Your task to perform on an android device: Add razer naga to the cart on walmart.com Image 0: 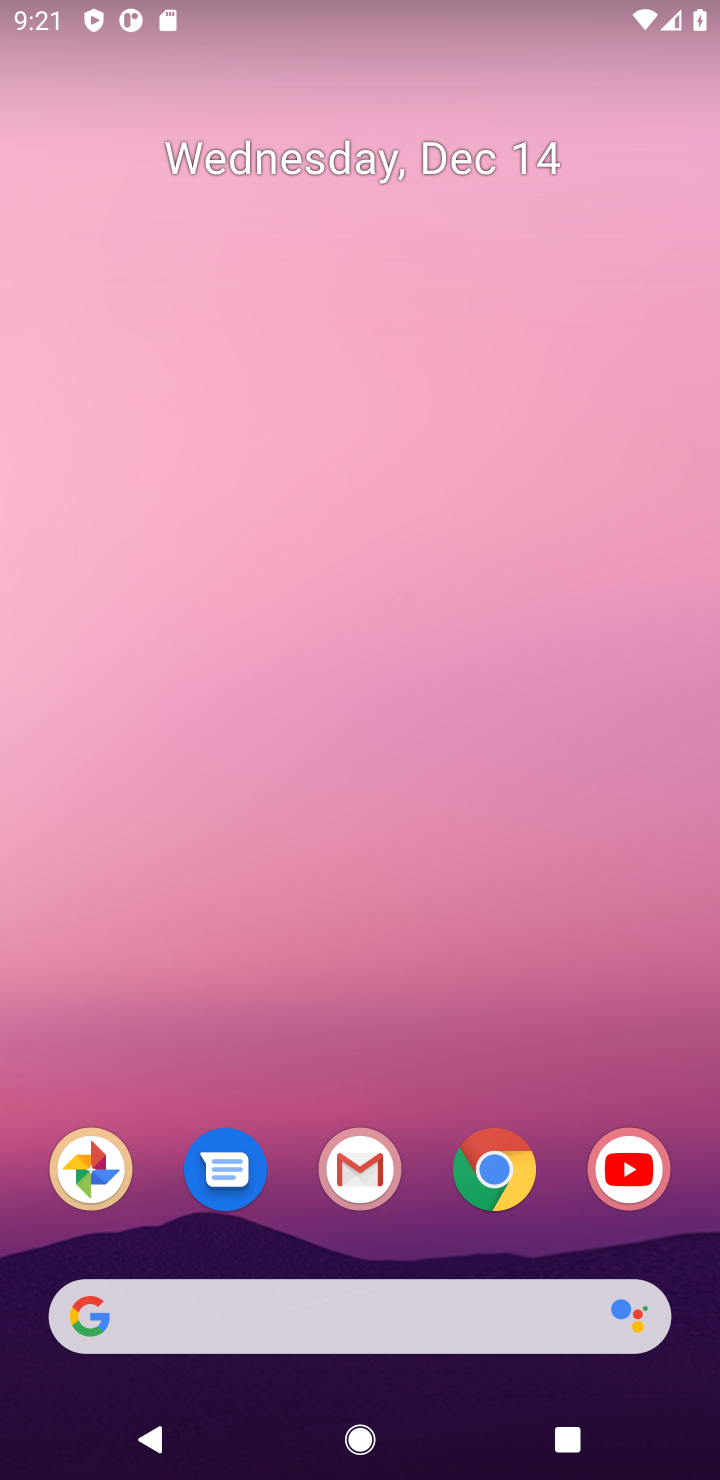
Step 0: click (498, 1183)
Your task to perform on an android device: Add razer naga to the cart on walmart.com Image 1: 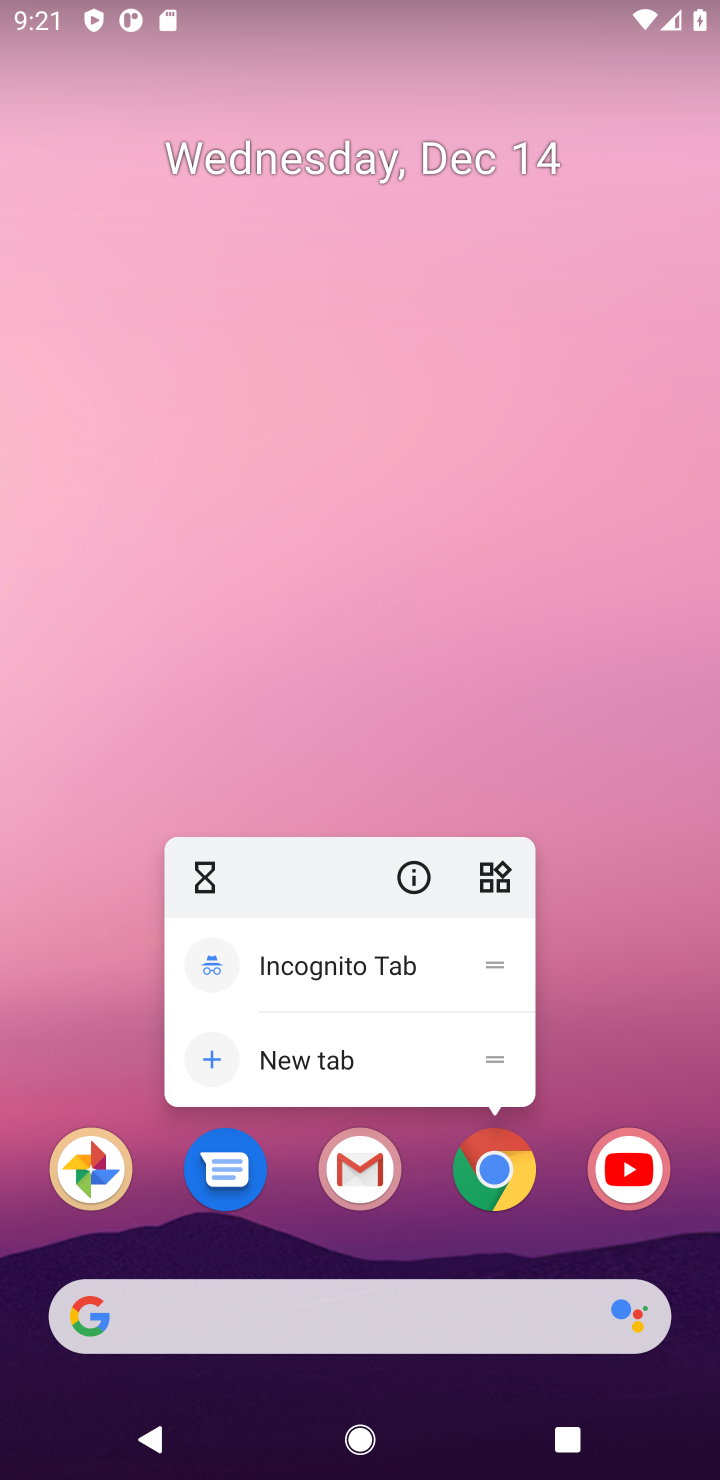
Step 1: click (488, 1192)
Your task to perform on an android device: Add razer naga to the cart on walmart.com Image 2: 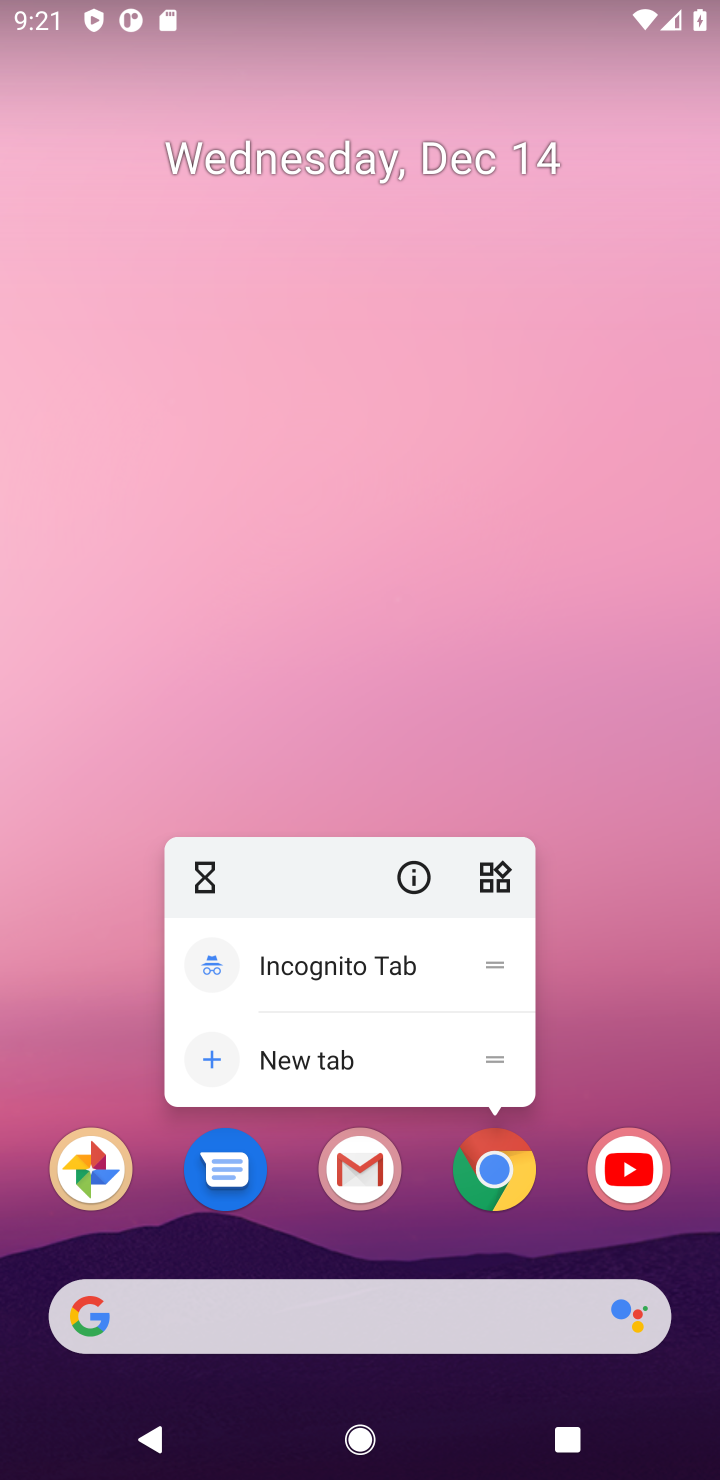
Step 2: click (491, 1188)
Your task to perform on an android device: Add razer naga to the cart on walmart.com Image 3: 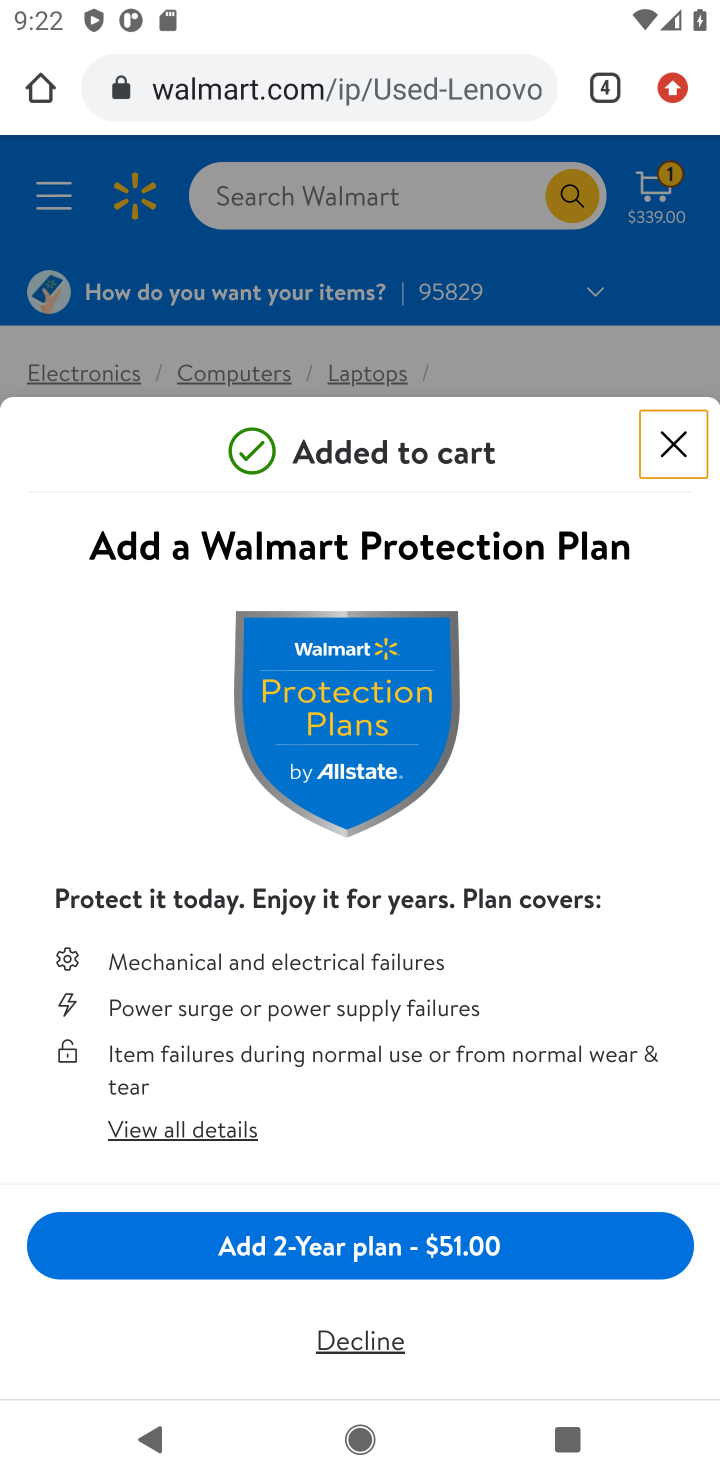
Step 3: click (675, 450)
Your task to perform on an android device: Add razer naga to the cart on walmart.com Image 4: 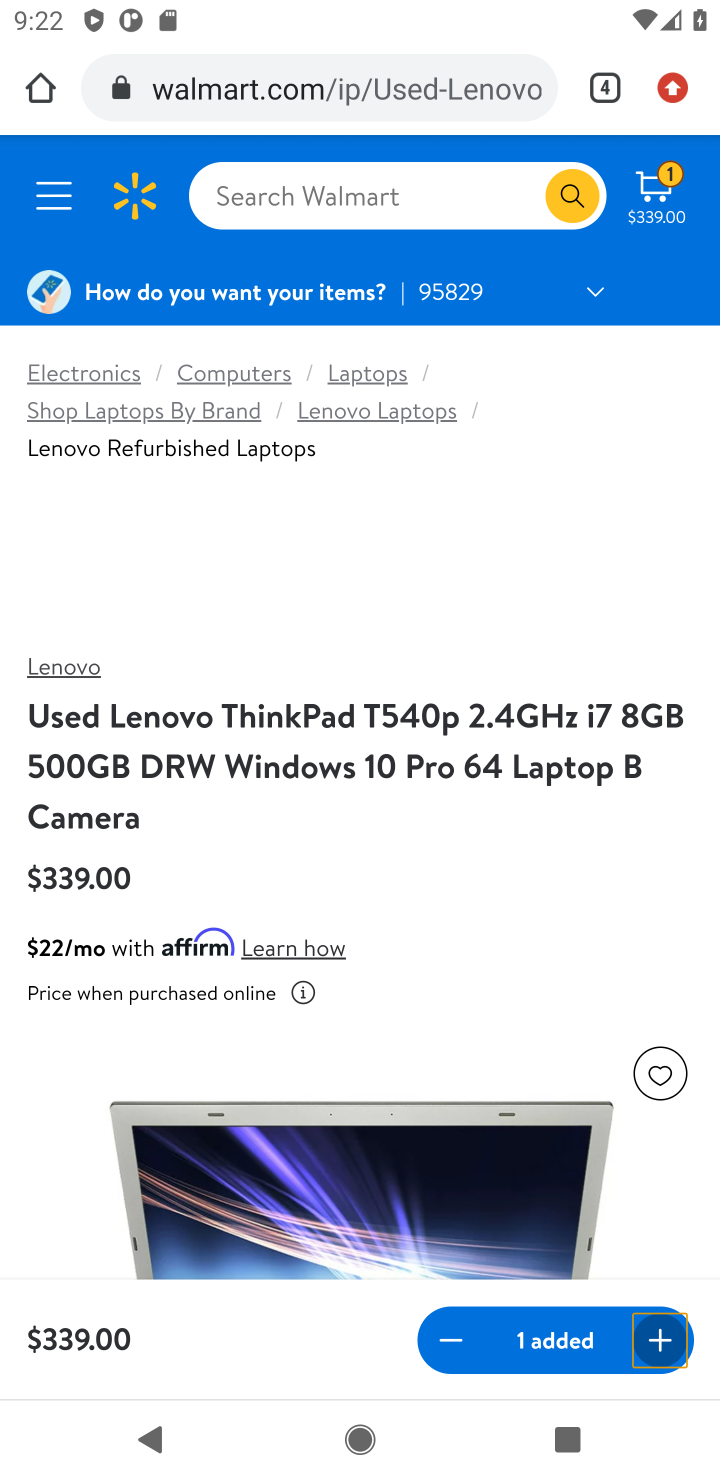
Step 4: click (370, 206)
Your task to perform on an android device: Add razer naga to the cart on walmart.com Image 5: 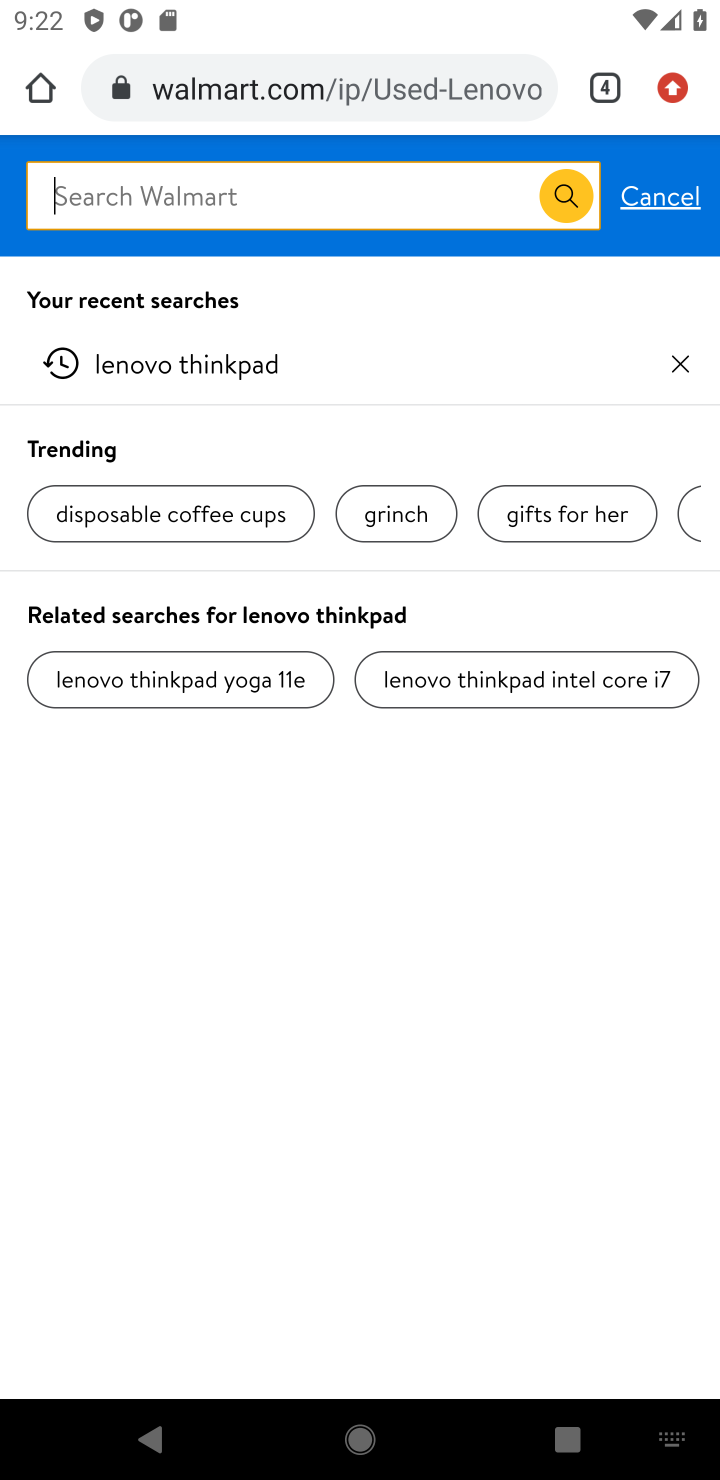
Step 5: type "razer naga"
Your task to perform on an android device: Add razer naga to the cart on walmart.com Image 6: 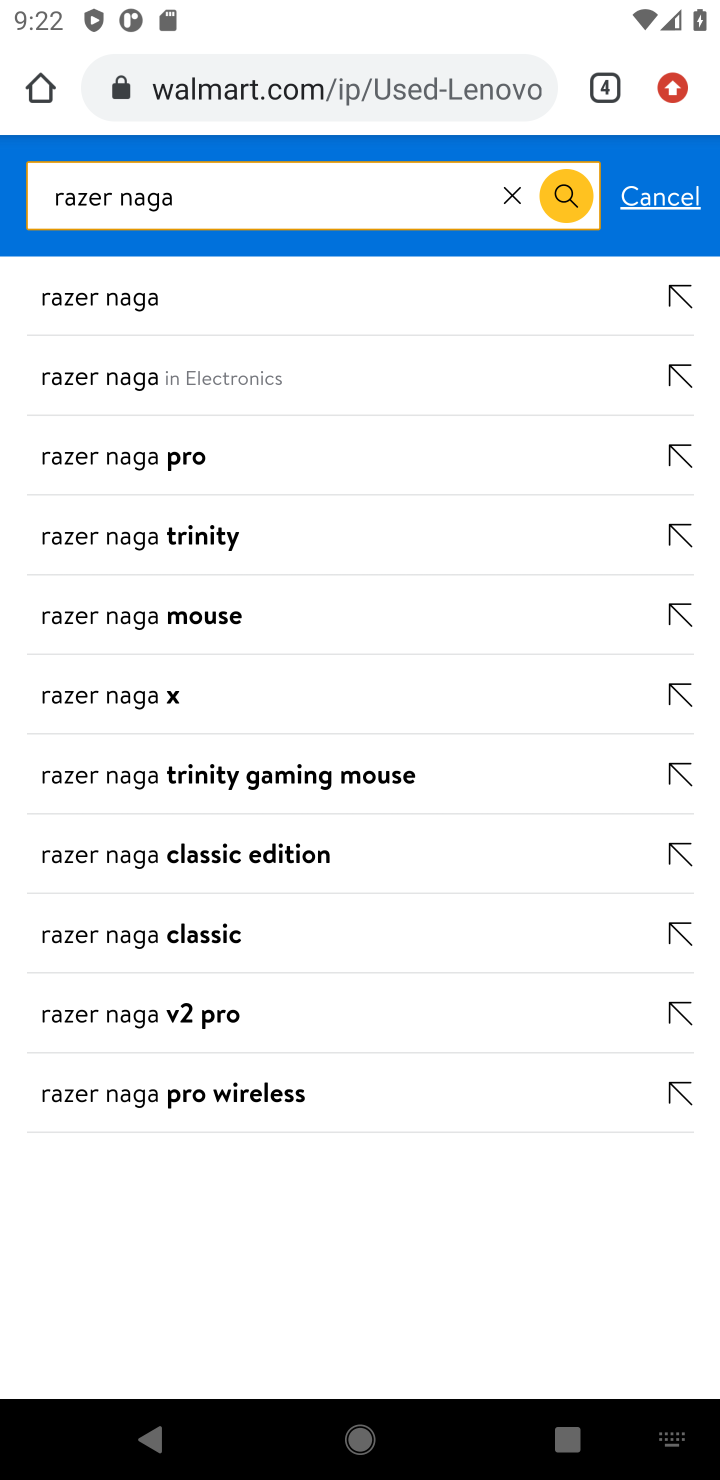
Step 6: click (130, 383)
Your task to perform on an android device: Add razer naga to the cart on walmart.com Image 7: 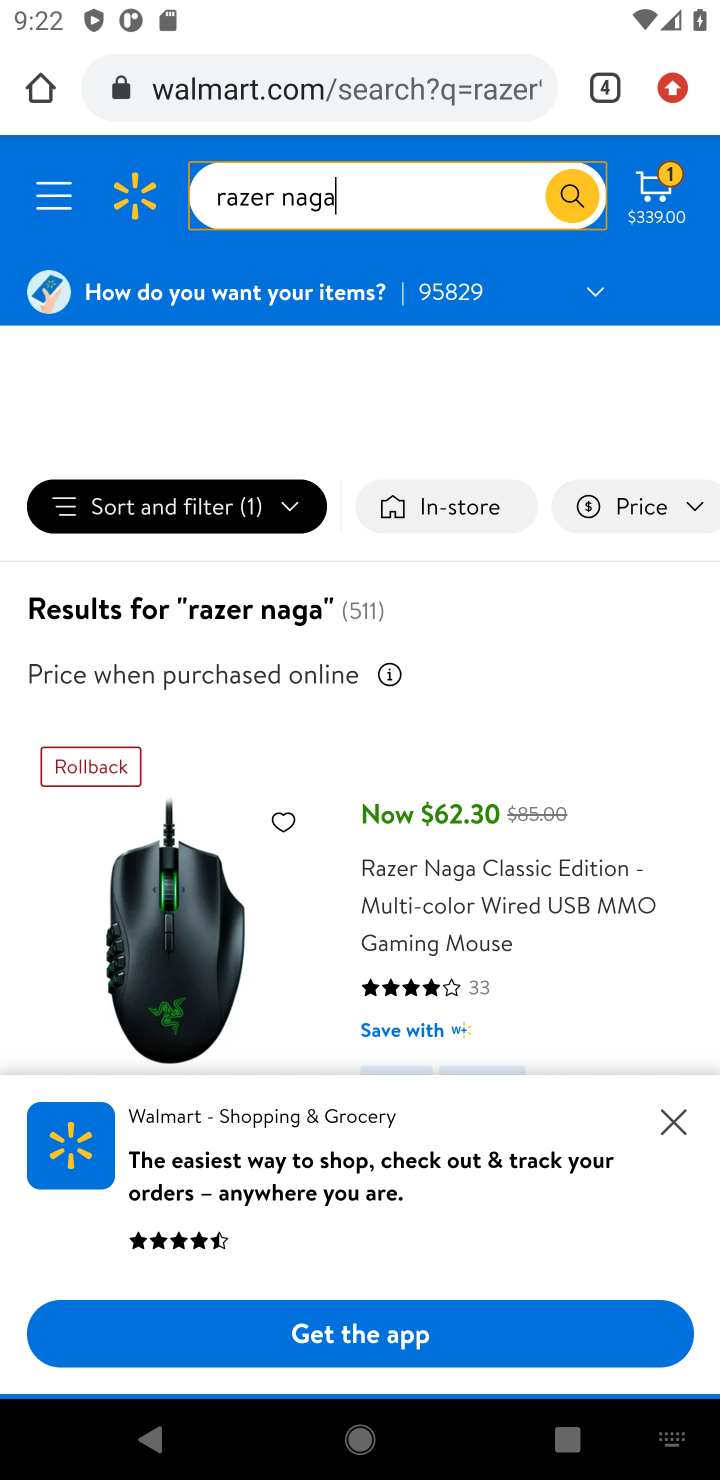
Step 7: click (686, 1108)
Your task to perform on an android device: Add razer naga to the cart on walmart.com Image 8: 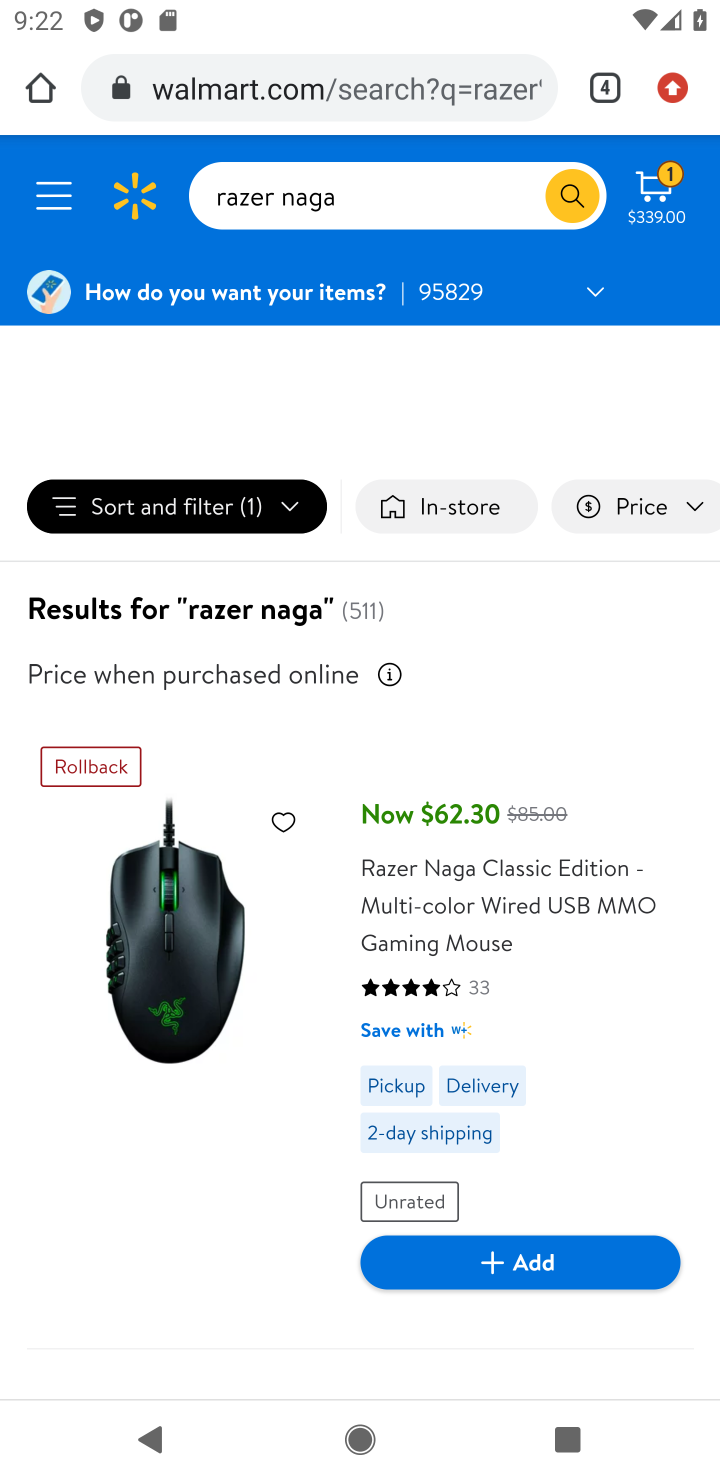
Step 8: click (508, 1273)
Your task to perform on an android device: Add razer naga to the cart on walmart.com Image 9: 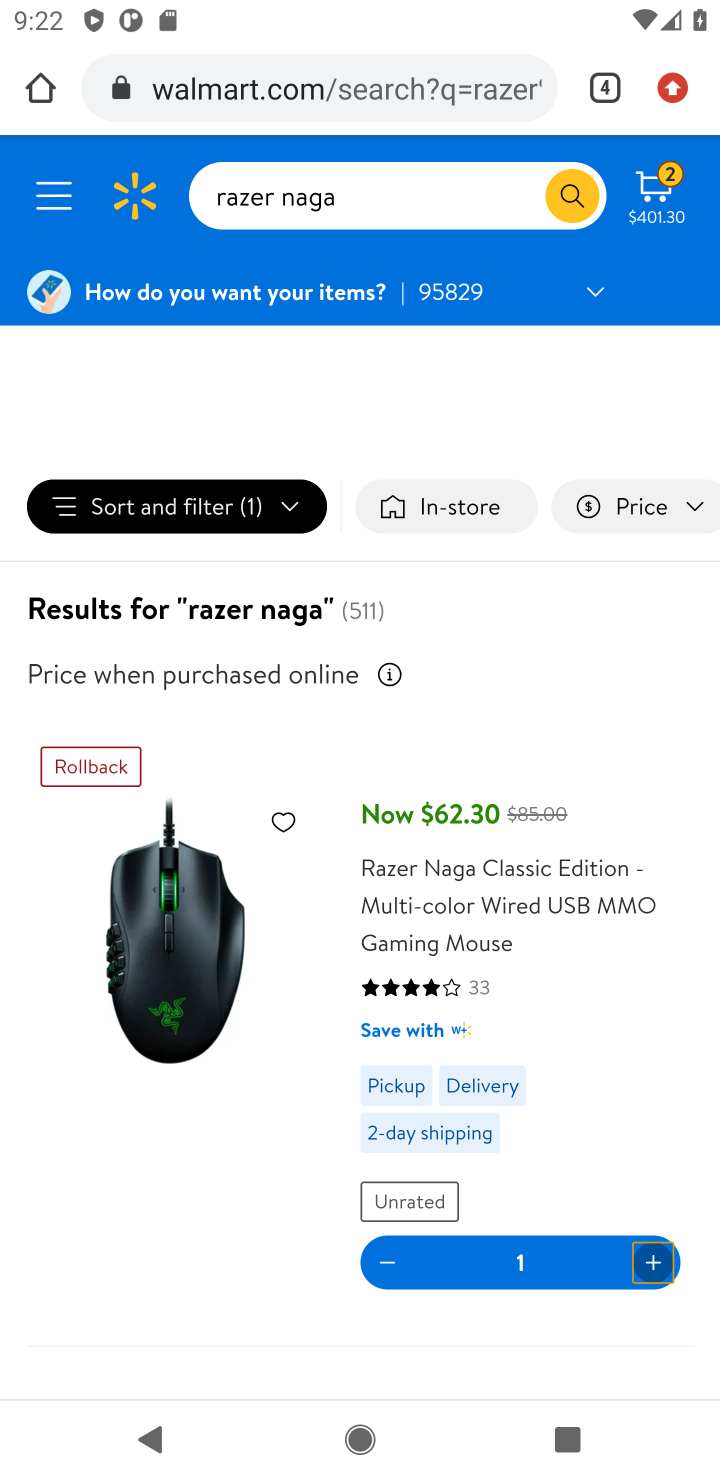
Step 9: task complete